Your task to perform on an android device: Check the news Image 0: 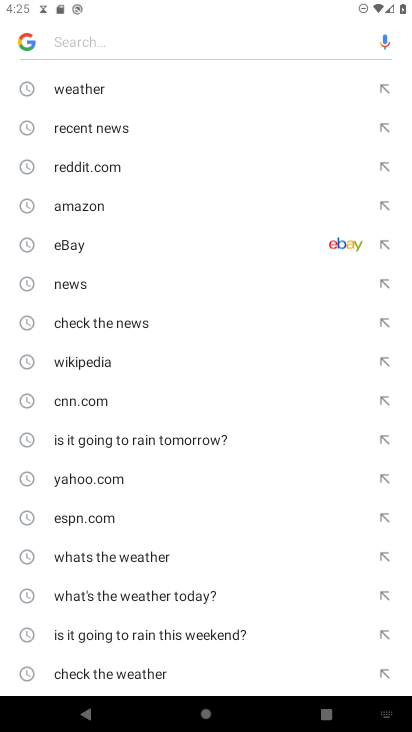
Step 0: press home button
Your task to perform on an android device: Check the news Image 1: 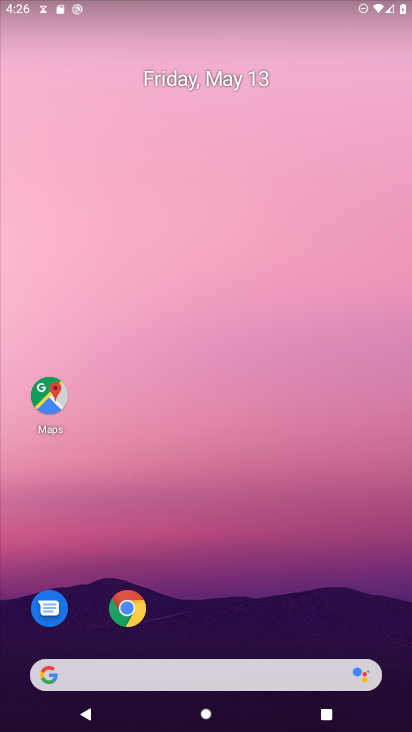
Step 1: drag from (308, 686) to (254, 122)
Your task to perform on an android device: Check the news Image 2: 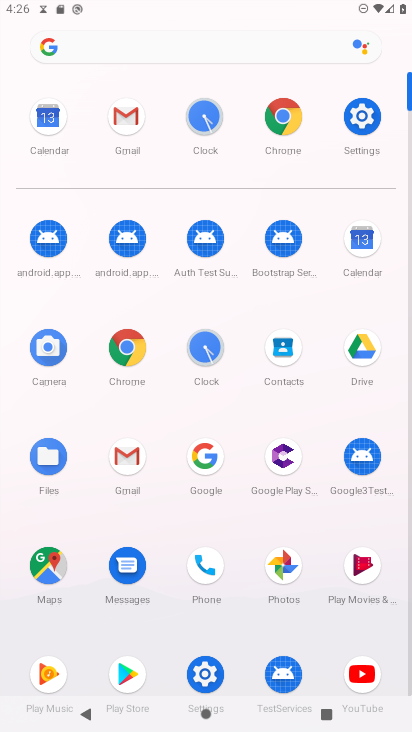
Step 2: click (132, 350)
Your task to perform on an android device: Check the news Image 3: 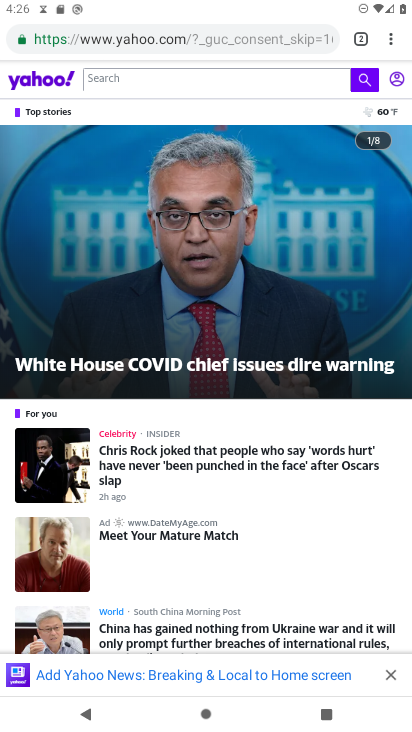
Step 3: click (224, 46)
Your task to perform on an android device: Check the news Image 4: 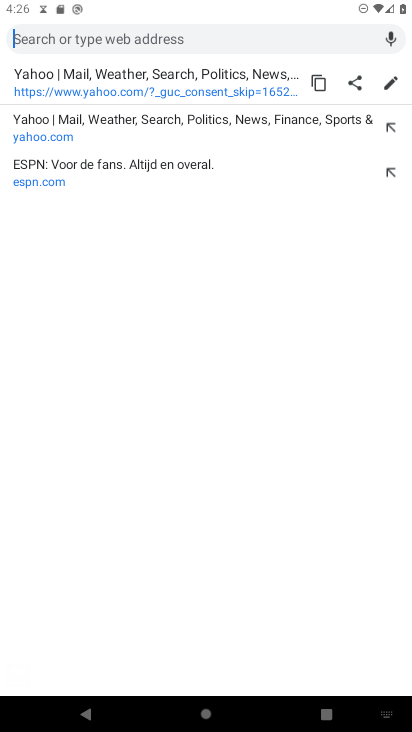
Step 4: type "check the news"
Your task to perform on an android device: Check the news Image 5: 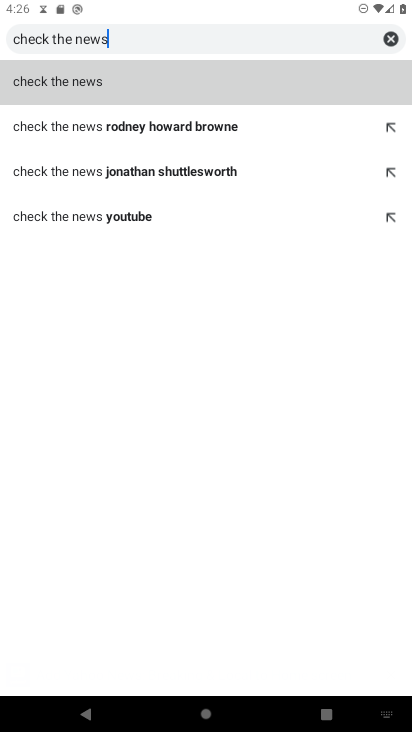
Step 5: click (150, 81)
Your task to perform on an android device: Check the news Image 6: 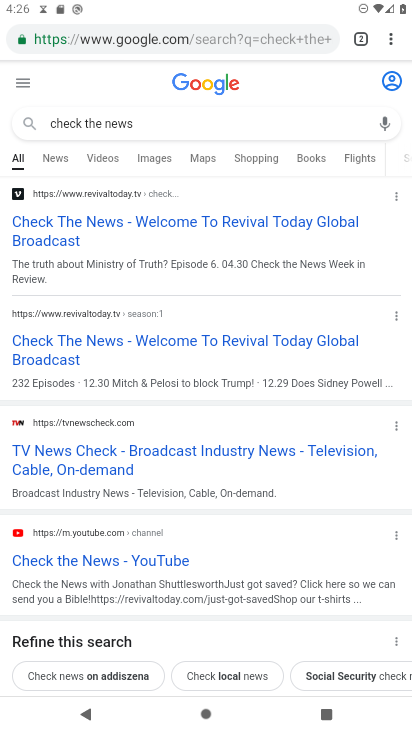
Step 6: task complete